Your task to perform on an android device: turn on the 12-hour format for clock Image 0: 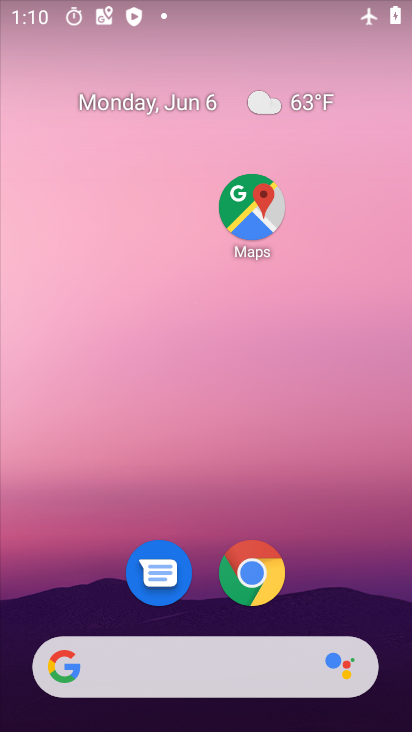
Step 0: drag from (214, 494) to (162, 57)
Your task to perform on an android device: turn on the 12-hour format for clock Image 1: 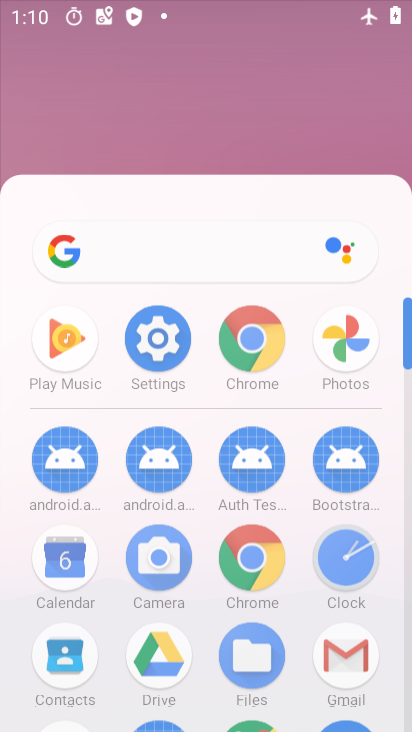
Step 1: click (164, 46)
Your task to perform on an android device: turn on the 12-hour format for clock Image 2: 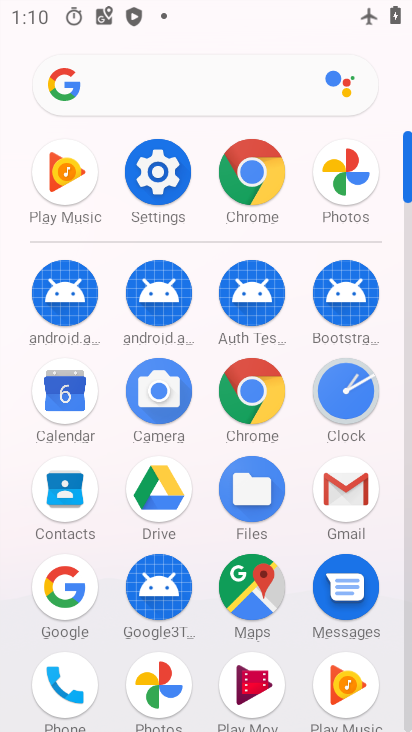
Step 2: click (145, 186)
Your task to perform on an android device: turn on the 12-hour format for clock Image 3: 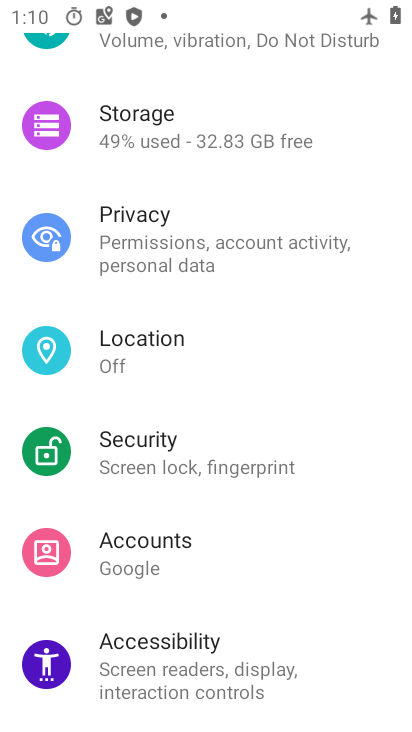
Step 3: press back button
Your task to perform on an android device: turn on the 12-hour format for clock Image 4: 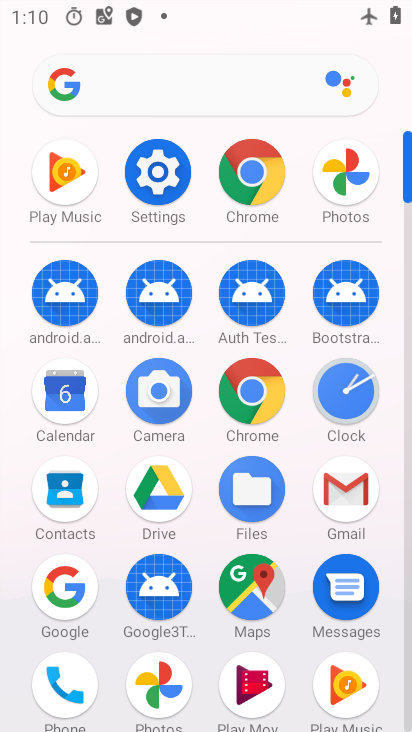
Step 4: click (342, 403)
Your task to perform on an android device: turn on the 12-hour format for clock Image 5: 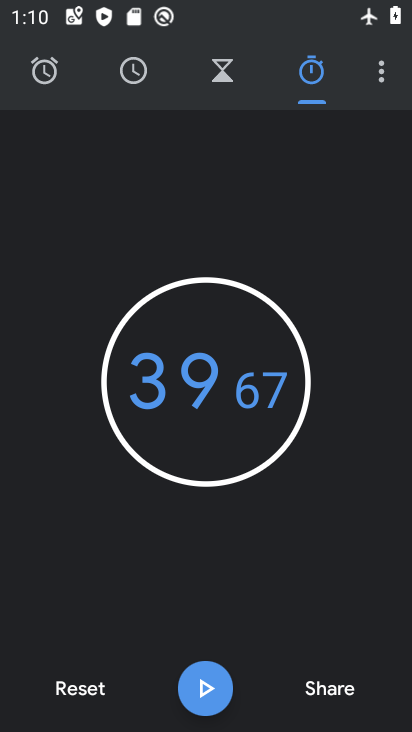
Step 5: click (388, 83)
Your task to perform on an android device: turn on the 12-hour format for clock Image 6: 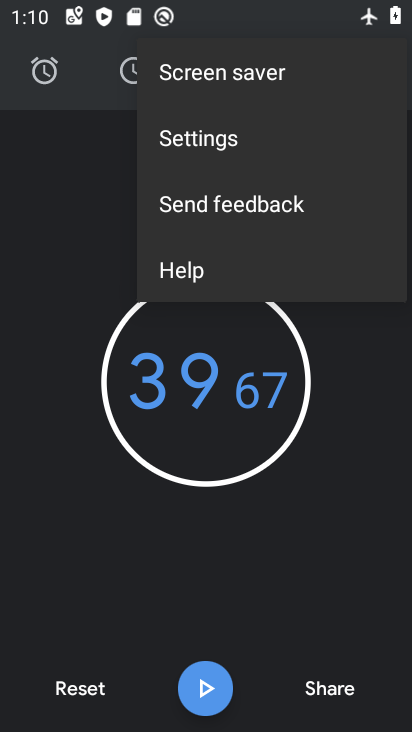
Step 6: click (244, 140)
Your task to perform on an android device: turn on the 12-hour format for clock Image 7: 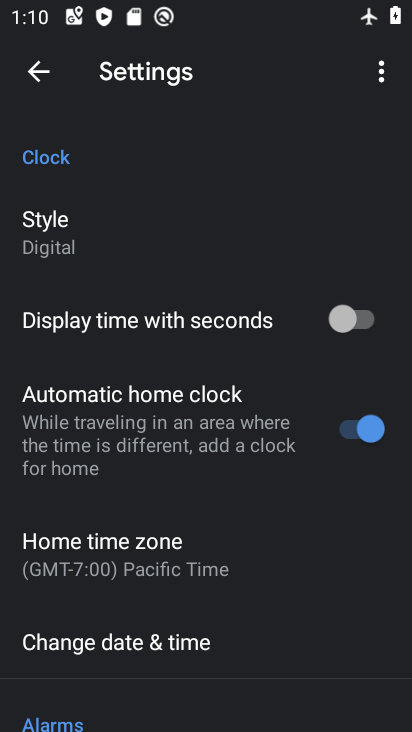
Step 7: click (216, 632)
Your task to perform on an android device: turn on the 12-hour format for clock Image 8: 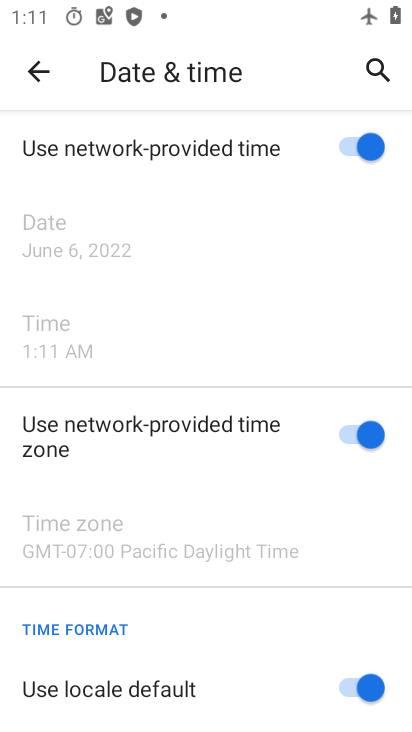
Step 8: task complete